Your task to perform on an android device: find snoozed emails in the gmail app Image 0: 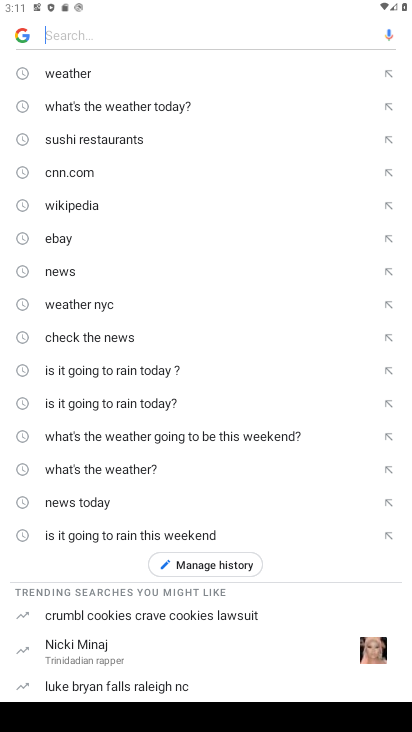
Step 0: press home button
Your task to perform on an android device: find snoozed emails in the gmail app Image 1: 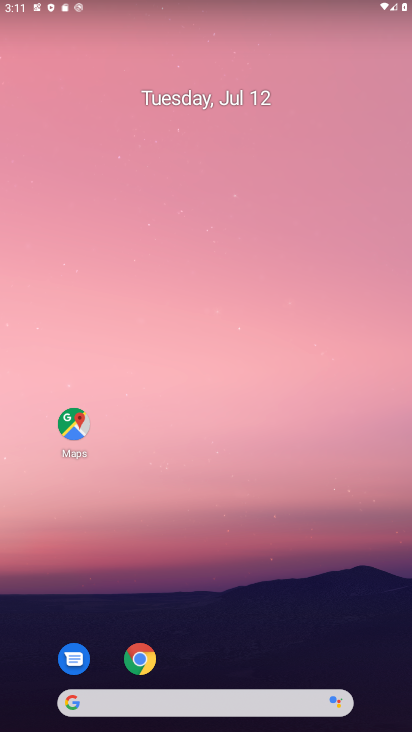
Step 1: drag from (203, 698) to (169, 142)
Your task to perform on an android device: find snoozed emails in the gmail app Image 2: 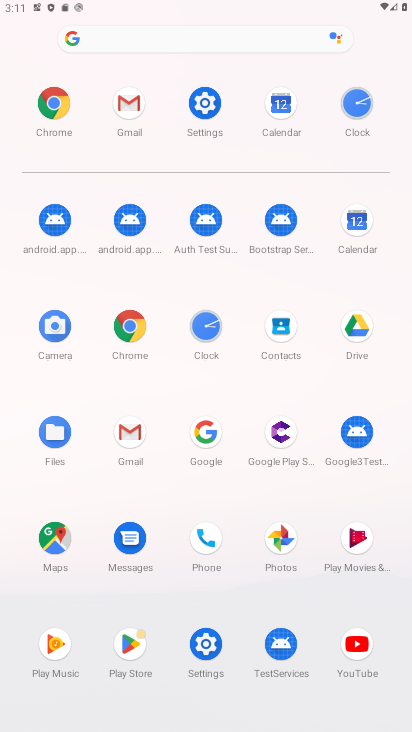
Step 2: click (129, 433)
Your task to perform on an android device: find snoozed emails in the gmail app Image 3: 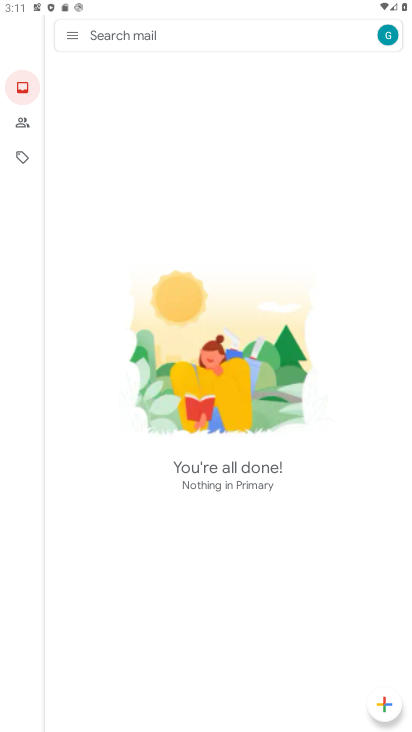
Step 3: click (73, 30)
Your task to perform on an android device: find snoozed emails in the gmail app Image 4: 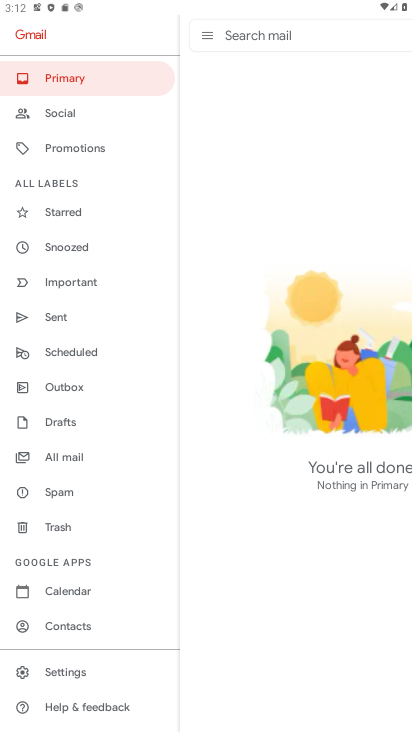
Step 4: click (76, 248)
Your task to perform on an android device: find snoozed emails in the gmail app Image 5: 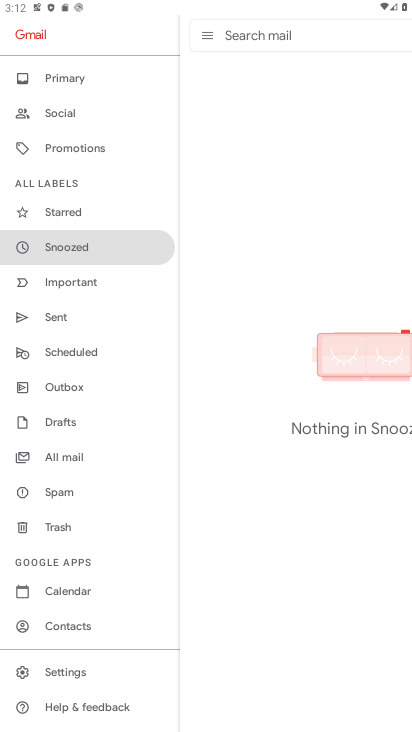
Step 5: task complete